Your task to perform on an android device: set an alarm Image 0: 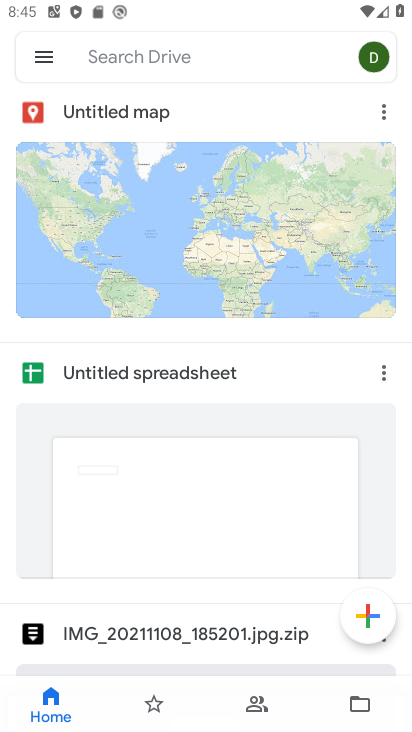
Step 0: press home button
Your task to perform on an android device: set an alarm Image 1: 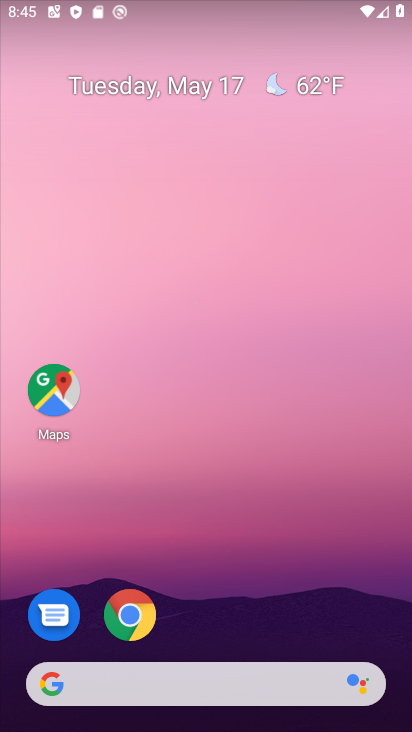
Step 1: drag from (294, 598) to (332, 103)
Your task to perform on an android device: set an alarm Image 2: 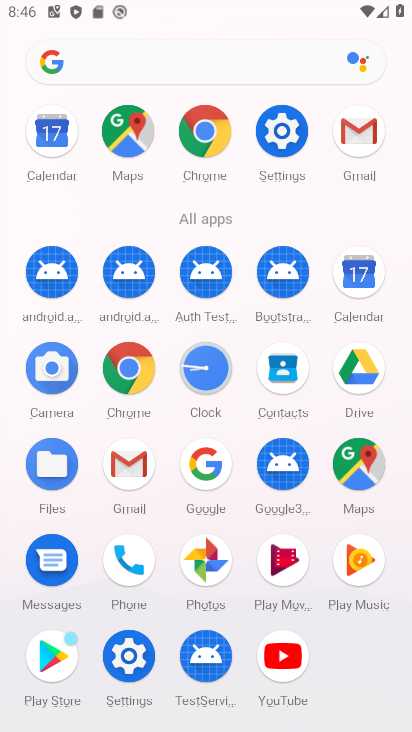
Step 2: click (204, 375)
Your task to perform on an android device: set an alarm Image 3: 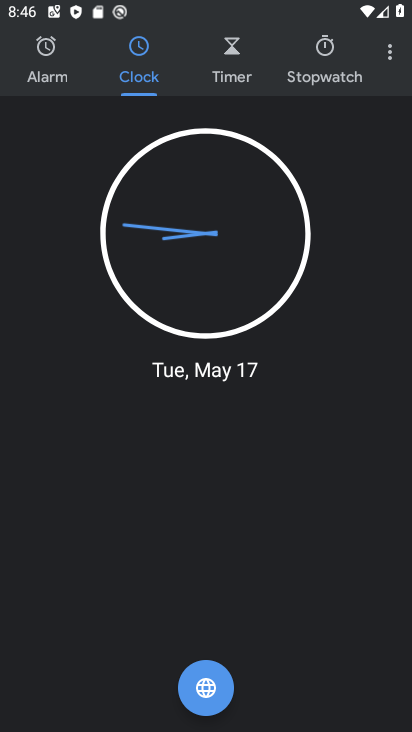
Step 3: click (64, 60)
Your task to perform on an android device: set an alarm Image 4: 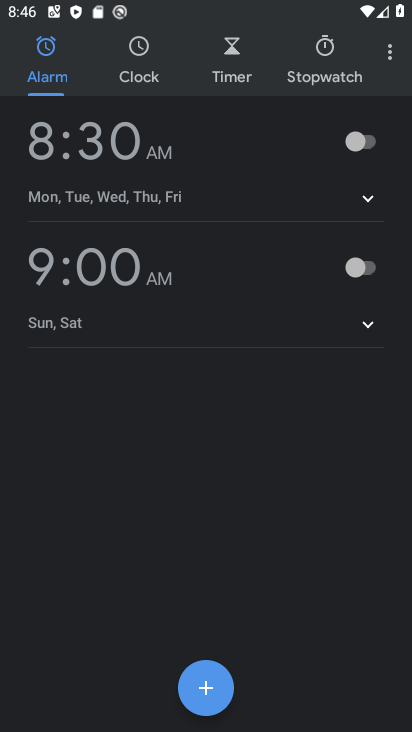
Step 4: click (368, 252)
Your task to perform on an android device: set an alarm Image 5: 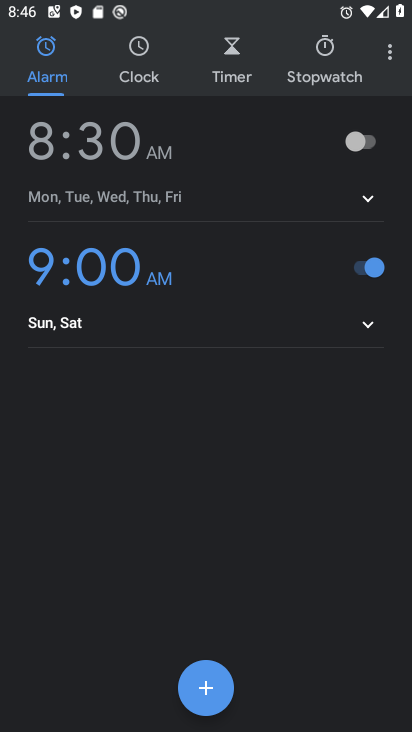
Step 5: task complete